Your task to perform on an android device: Open notification settings Image 0: 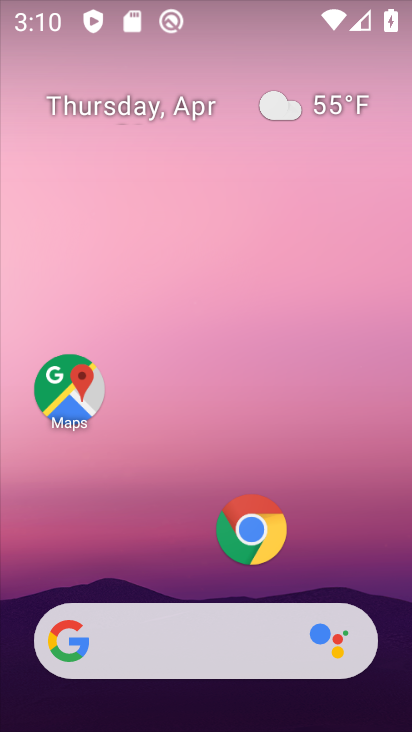
Step 0: drag from (158, 490) to (176, 180)
Your task to perform on an android device: Open notification settings Image 1: 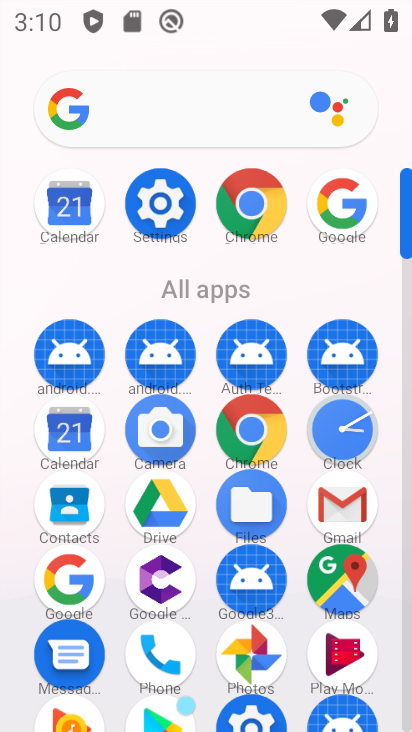
Step 1: click (162, 203)
Your task to perform on an android device: Open notification settings Image 2: 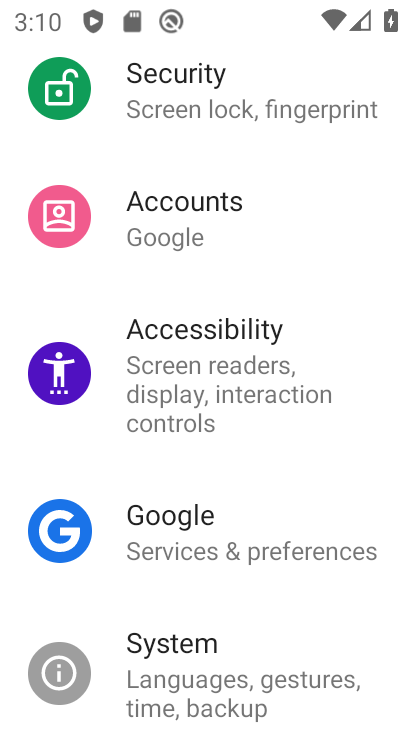
Step 2: drag from (246, 265) to (228, 591)
Your task to perform on an android device: Open notification settings Image 3: 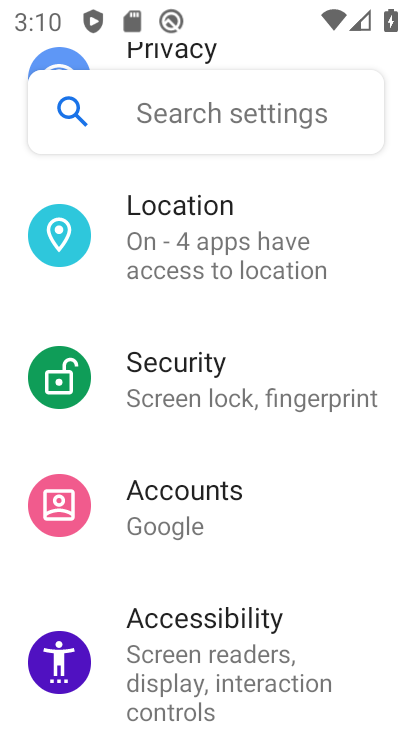
Step 3: drag from (198, 342) to (197, 630)
Your task to perform on an android device: Open notification settings Image 4: 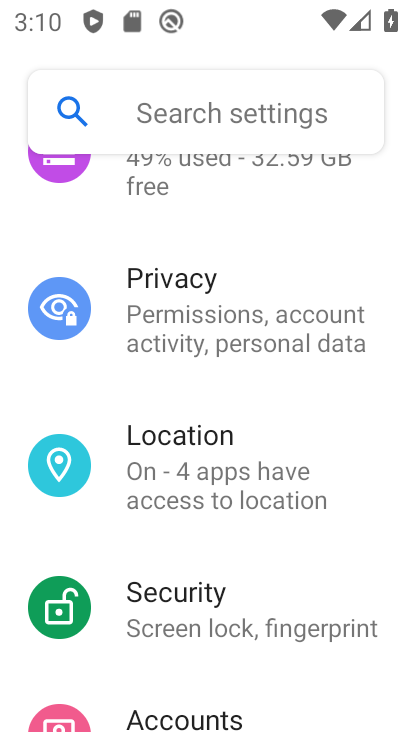
Step 4: drag from (220, 280) to (244, 604)
Your task to perform on an android device: Open notification settings Image 5: 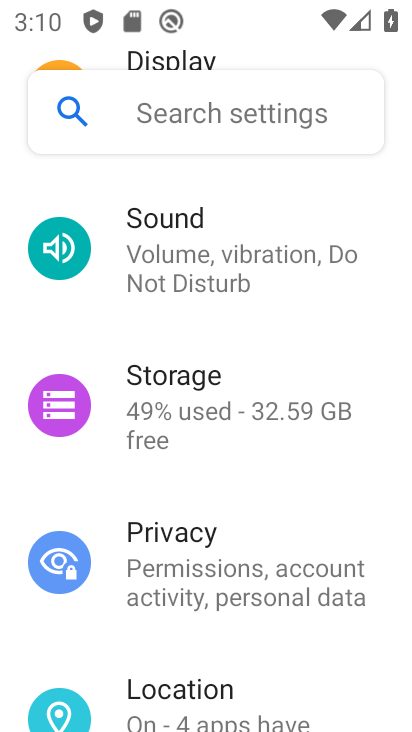
Step 5: drag from (218, 266) to (247, 608)
Your task to perform on an android device: Open notification settings Image 6: 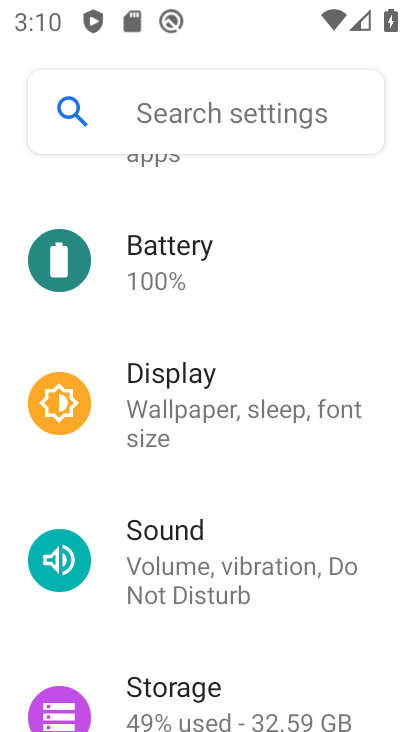
Step 6: drag from (218, 282) to (204, 625)
Your task to perform on an android device: Open notification settings Image 7: 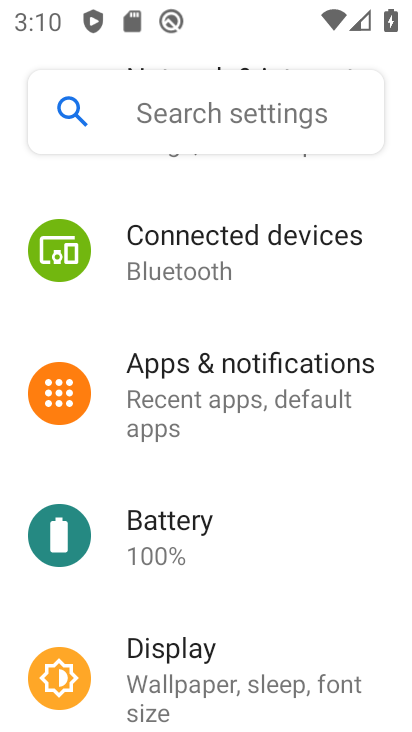
Step 7: click (208, 380)
Your task to perform on an android device: Open notification settings Image 8: 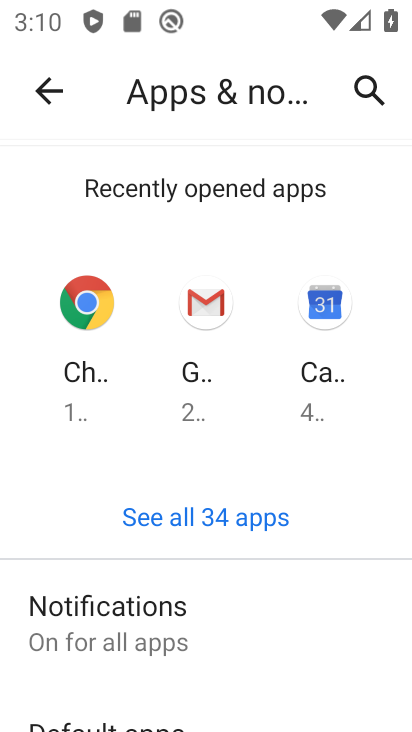
Step 8: task complete